Your task to perform on an android device: Toggle the flashlight Image 0: 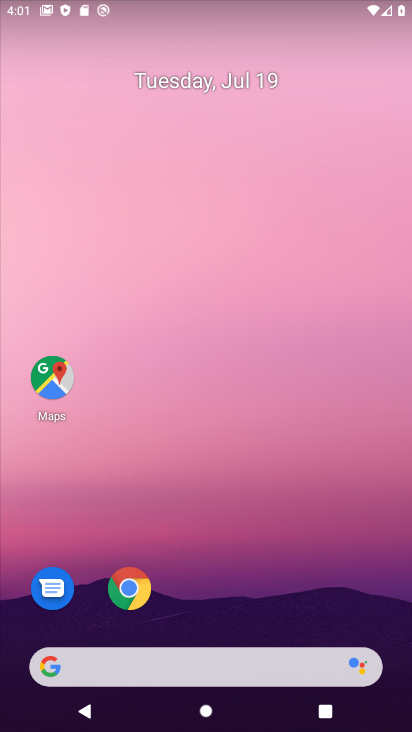
Step 0: drag from (306, 0) to (282, 505)
Your task to perform on an android device: Toggle the flashlight Image 1: 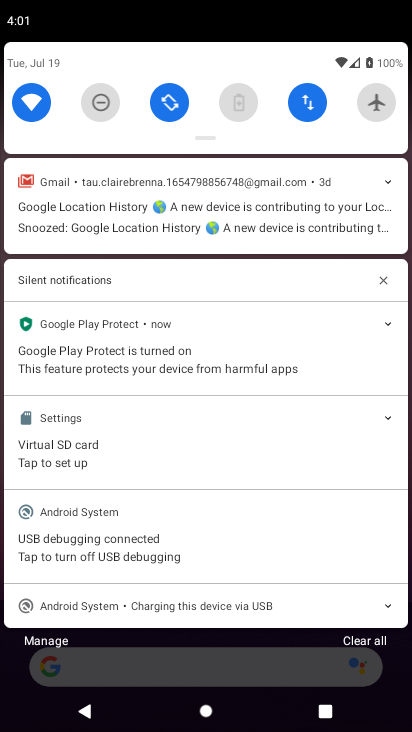
Step 1: task complete